Your task to perform on an android device: allow cookies in the chrome app Image 0: 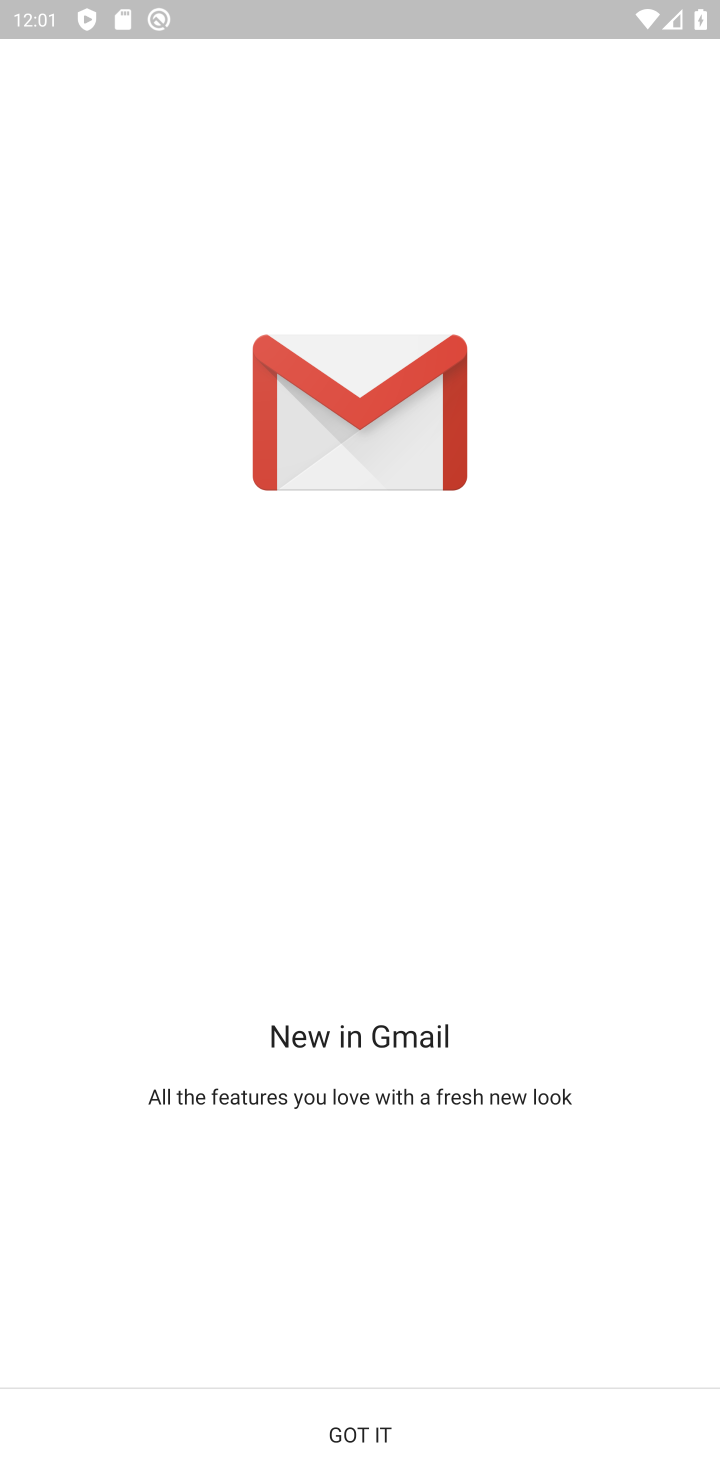
Step 0: click (366, 1426)
Your task to perform on an android device: allow cookies in the chrome app Image 1: 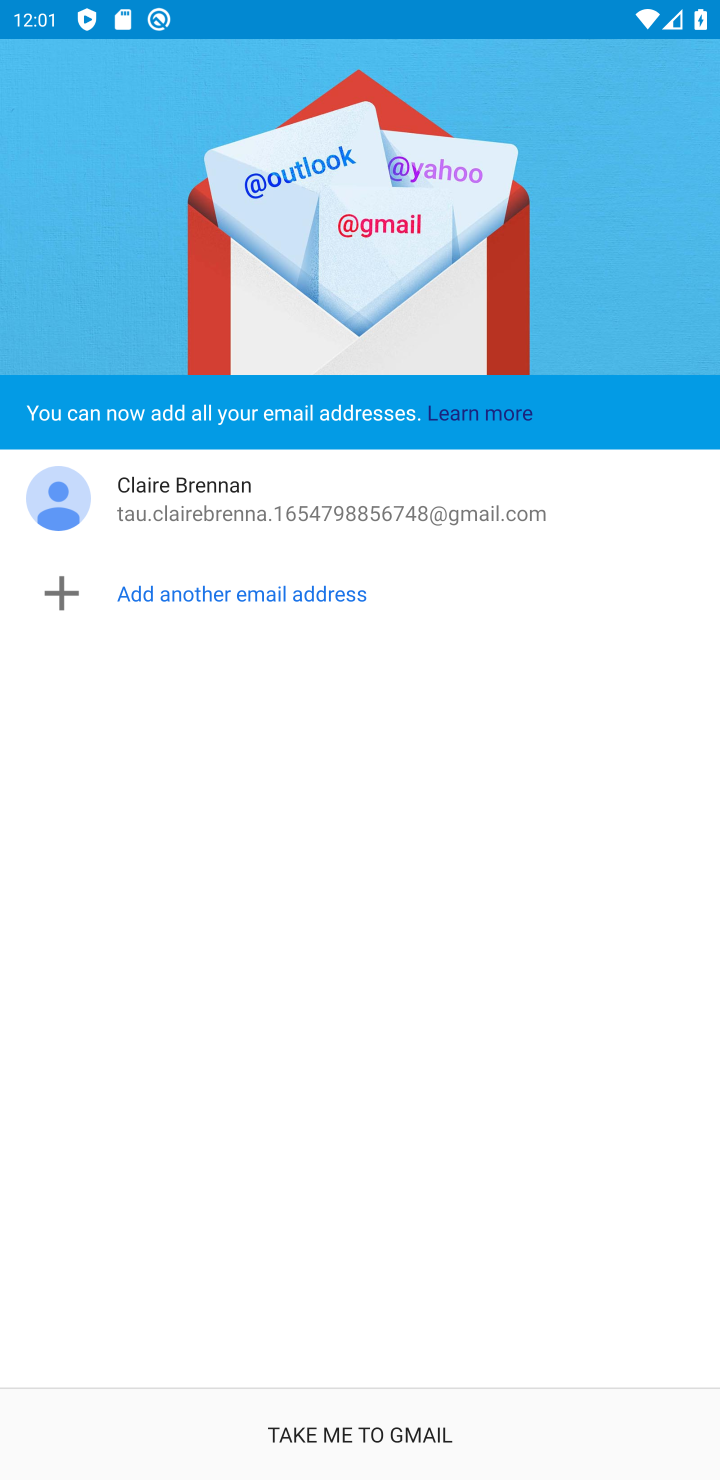
Step 1: click (364, 1432)
Your task to perform on an android device: allow cookies in the chrome app Image 2: 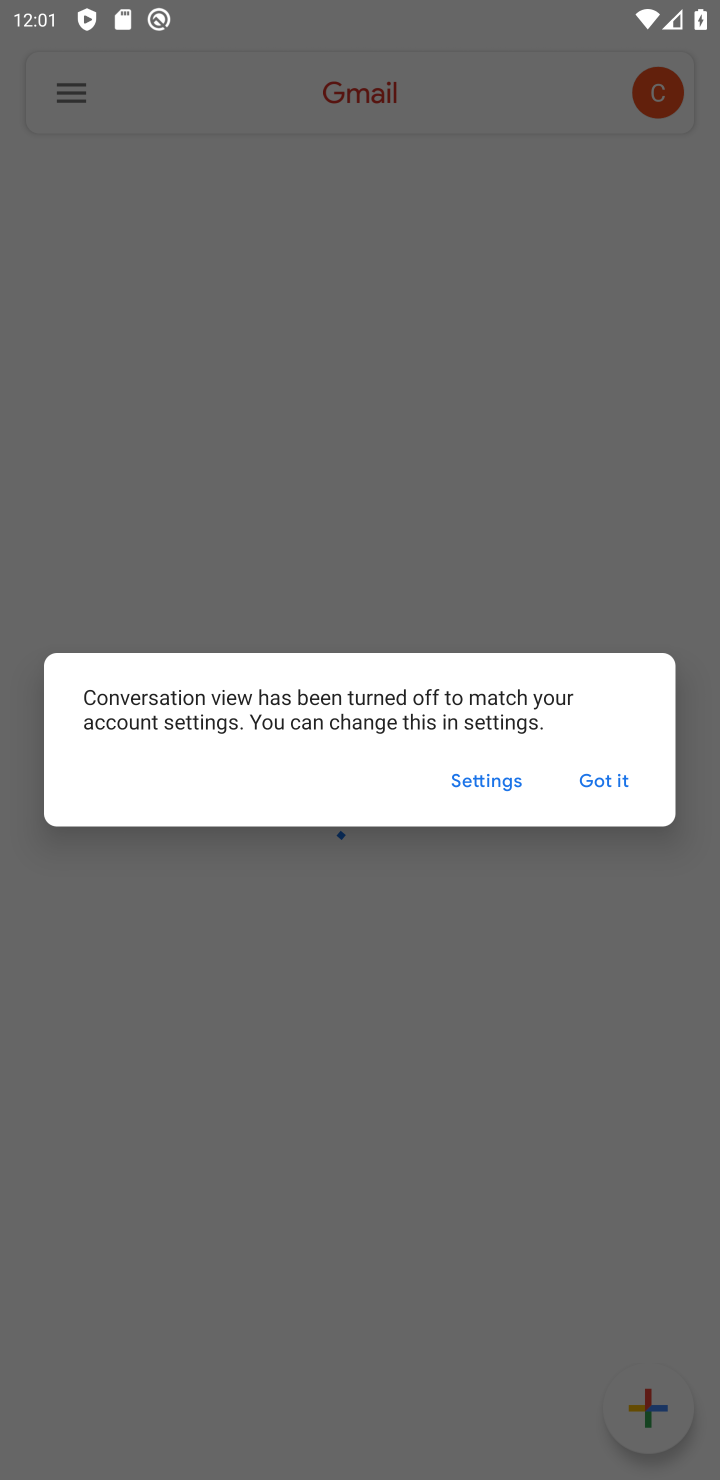
Step 2: task complete